Your task to perform on an android device: toggle javascript in the chrome app Image 0: 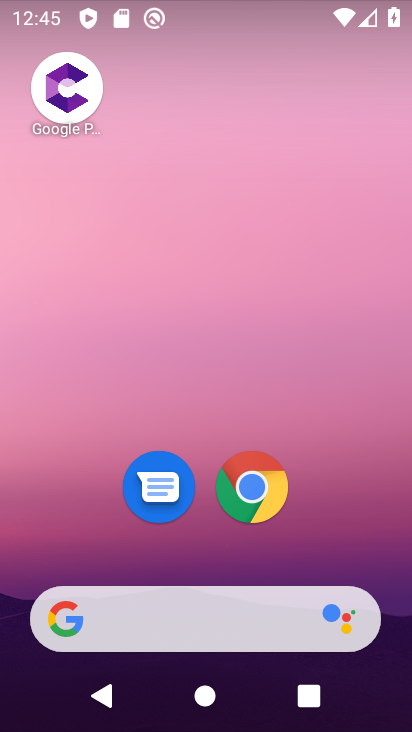
Step 0: click (237, 485)
Your task to perform on an android device: toggle javascript in the chrome app Image 1: 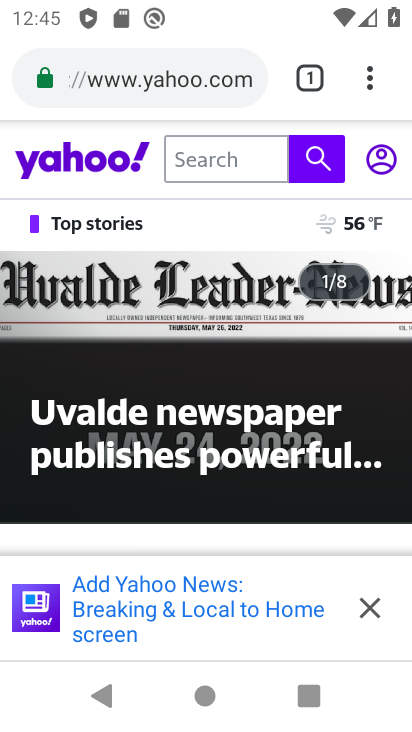
Step 1: click (326, 83)
Your task to perform on an android device: toggle javascript in the chrome app Image 2: 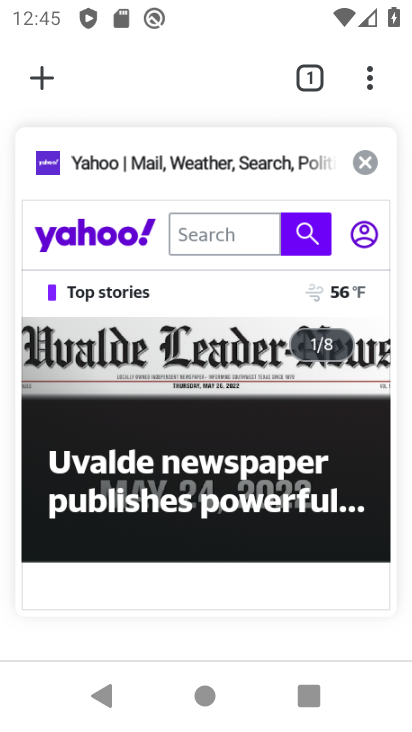
Step 2: click (366, 154)
Your task to perform on an android device: toggle javascript in the chrome app Image 3: 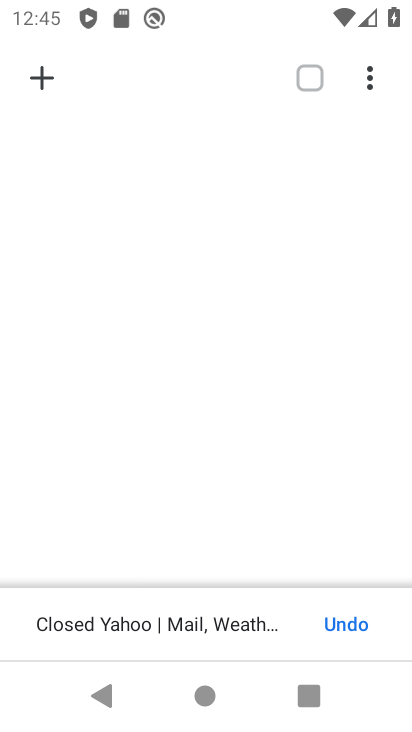
Step 3: click (373, 76)
Your task to perform on an android device: toggle javascript in the chrome app Image 4: 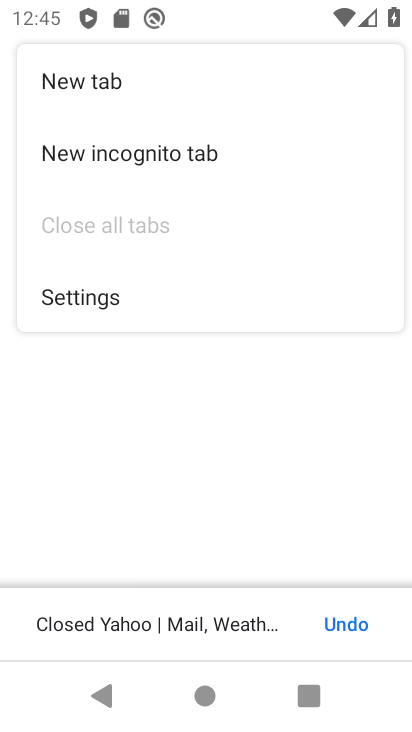
Step 4: click (96, 303)
Your task to perform on an android device: toggle javascript in the chrome app Image 5: 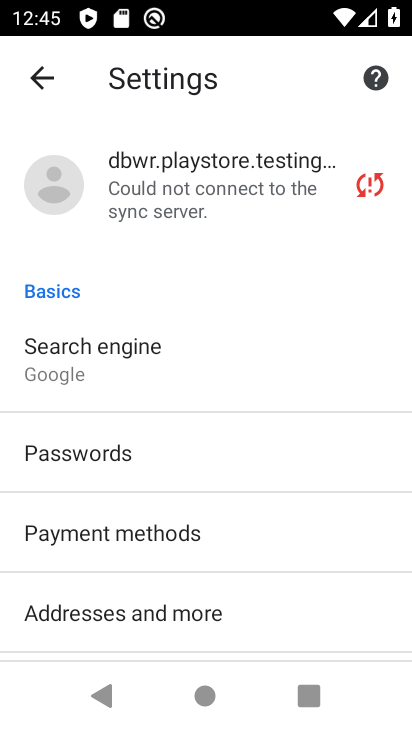
Step 5: drag from (295, 637) to (253, 260)
Your task to perform on an android device: toggle javascript in the chrome app Image 6: 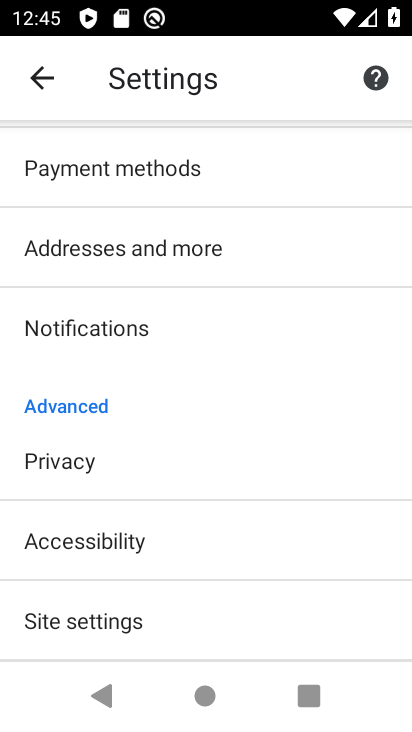
Step 6: drag from (251, 607) to (262, 420)
Your task to perform on an android device: toggle javascript in the chrome app Image 7: 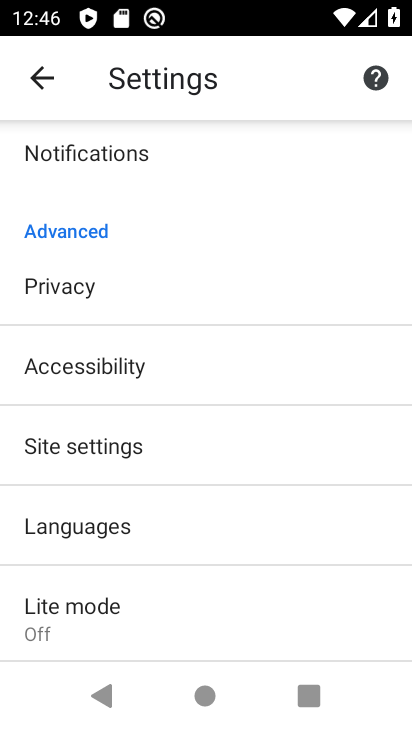
Step 7: click (86, 453)
Your task to perform on an android device: toggle javascript in the chrome app Image 8: 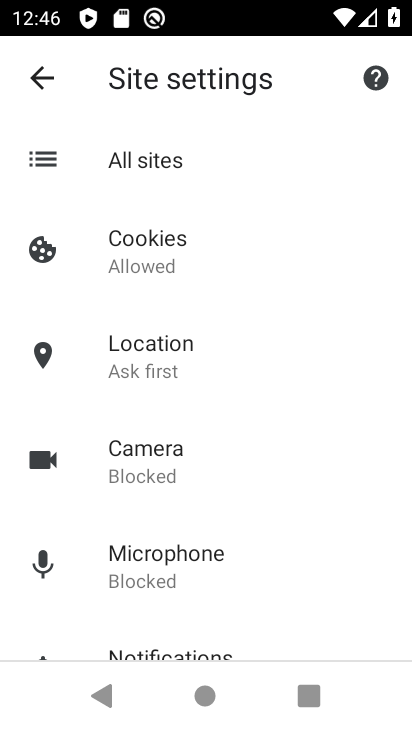
Step 8: drag from (293, 593) to (301, 269)
Your task to perform on an android device: toggle javascript in the chrome app Image 9: 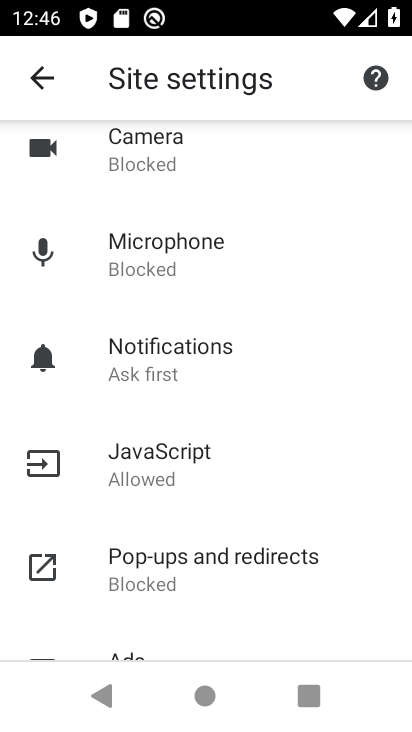
Step 9: click (125, 466)
Your task to perform on an android device: toggle javascript in the chrome app Image 10: 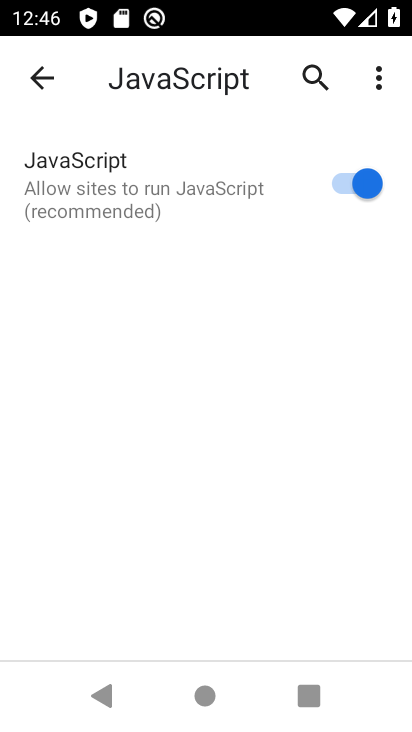
Step 10: click (365, 188)
Your task to perform on an android device: toggle javascript in the chrome app Image 11: 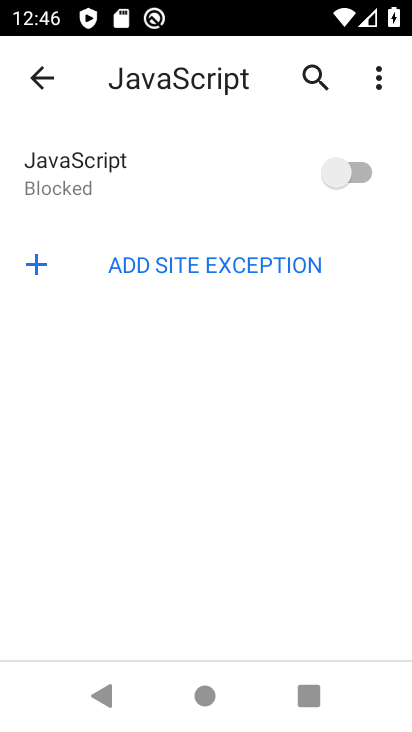
Step 11: task complete